Your task to perform on an android device: manage bookmarks in the chrome app Image 0: 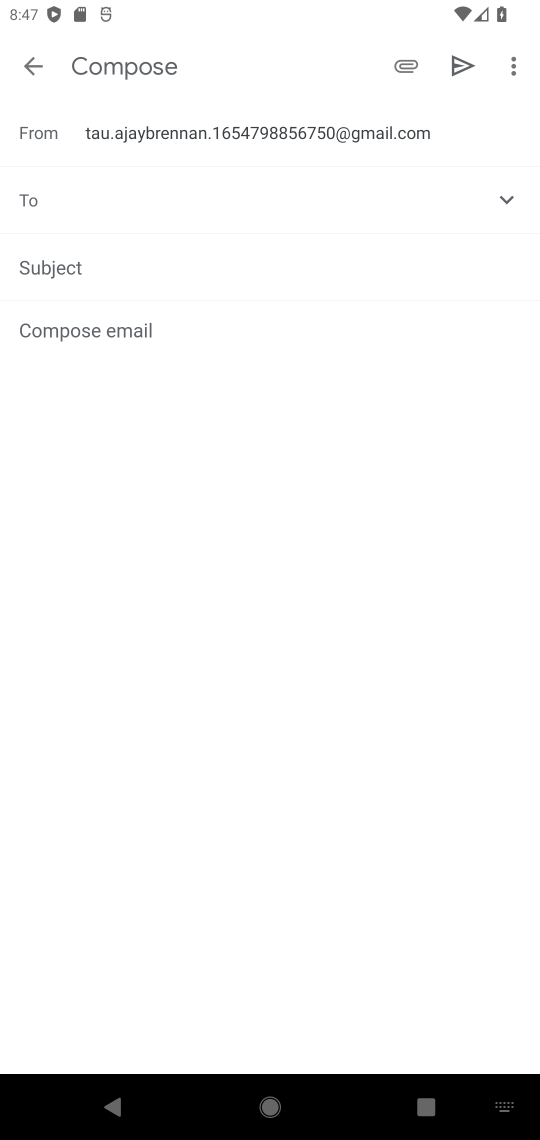
Step 0: press home button
Your task to perform on an android device: manage bookmarks in the chrome app Image 1: 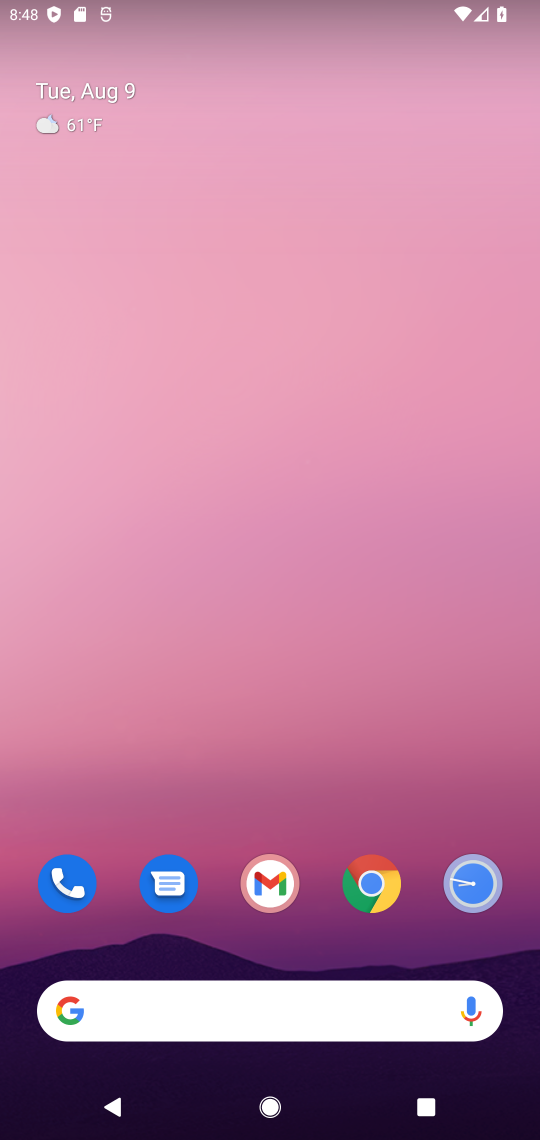
Step 1: click (367, 52)
Your task to perform on an android device: manage bookmarks in the chrome app Image 2: 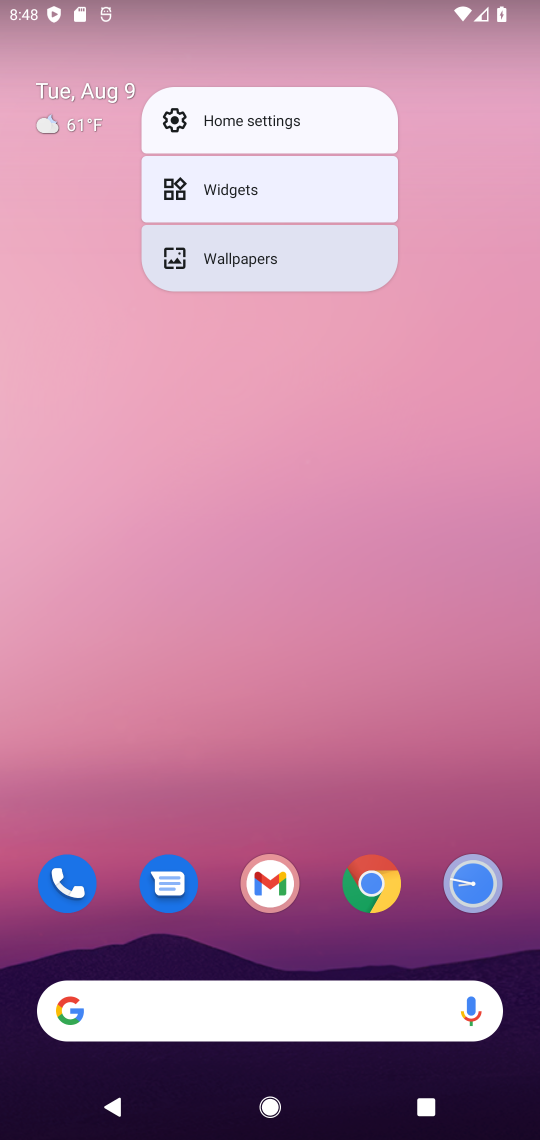
Step 2: click (230, 642)
Your task to perform on an android device: manage bookmarks in the chrome app Image 3: 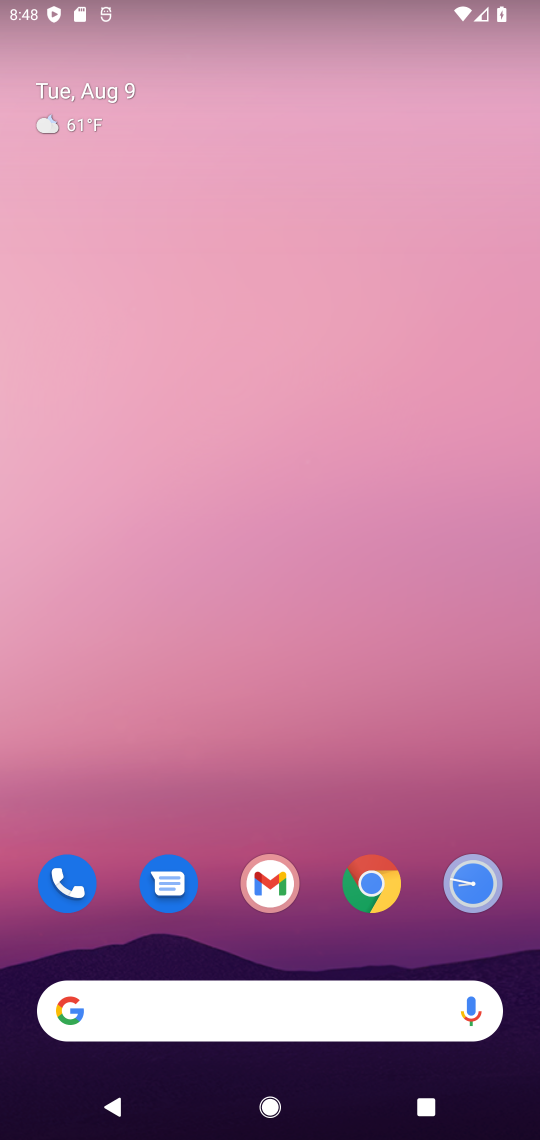
Step 3: drag from (306, 793) to (324, 52)
Your task to perform on an android device: manage bookmarks in the chrome app Image 4: 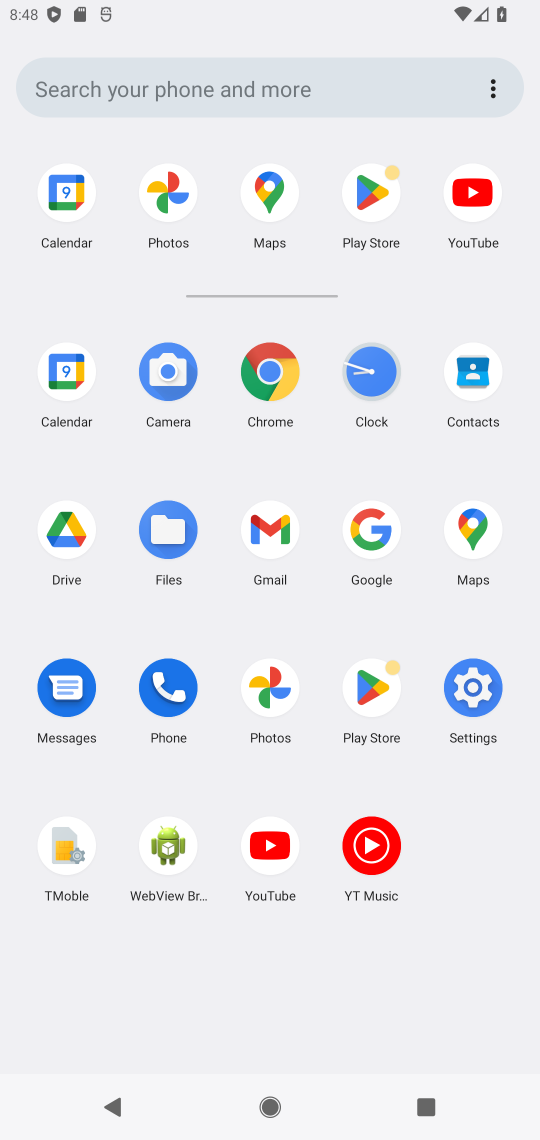
Step 4: click (272, 368)
Your task to perform on an android device: manage bookmarks in the chrome app Image 5: 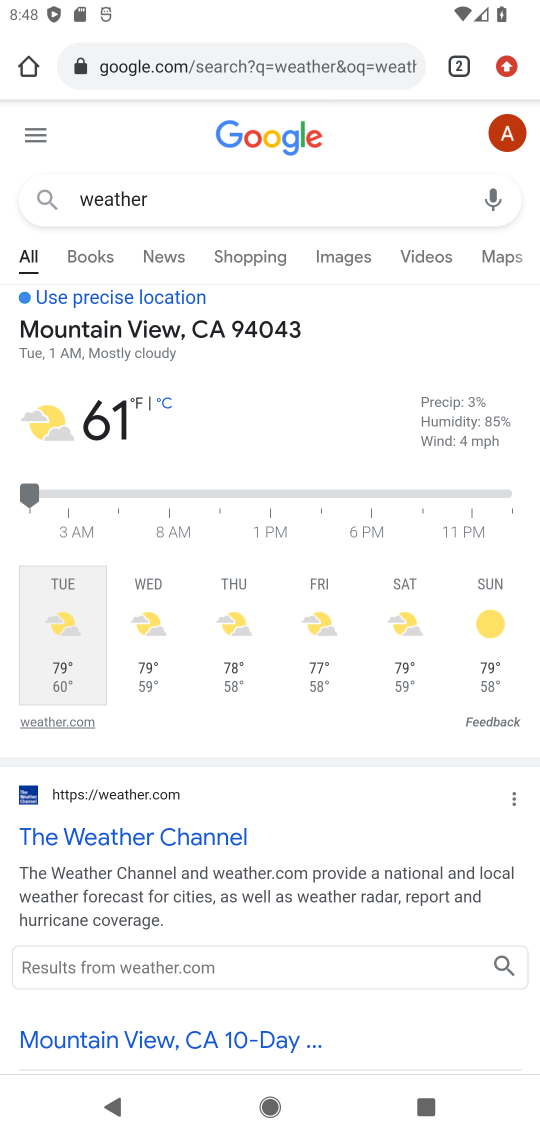
Step 5: drag from (526, 58) to (327, 441)
Your task to perform on an android device: manage bookmarks in the chrome app Image 6: 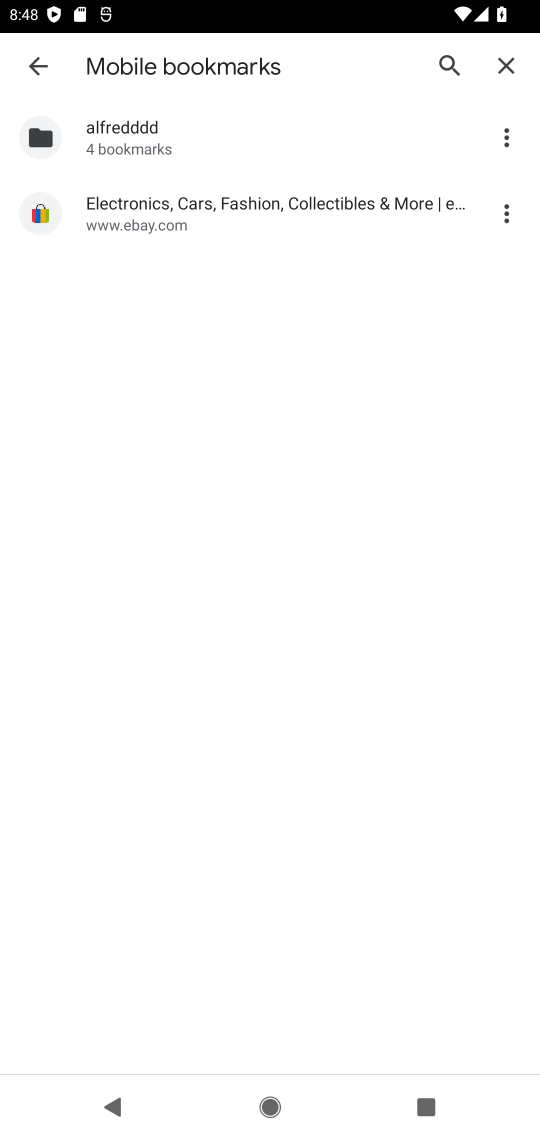
Step 6: click (506, 200)
Your task to perform on an android device: manage bookmarks in the chrome app Image 7: 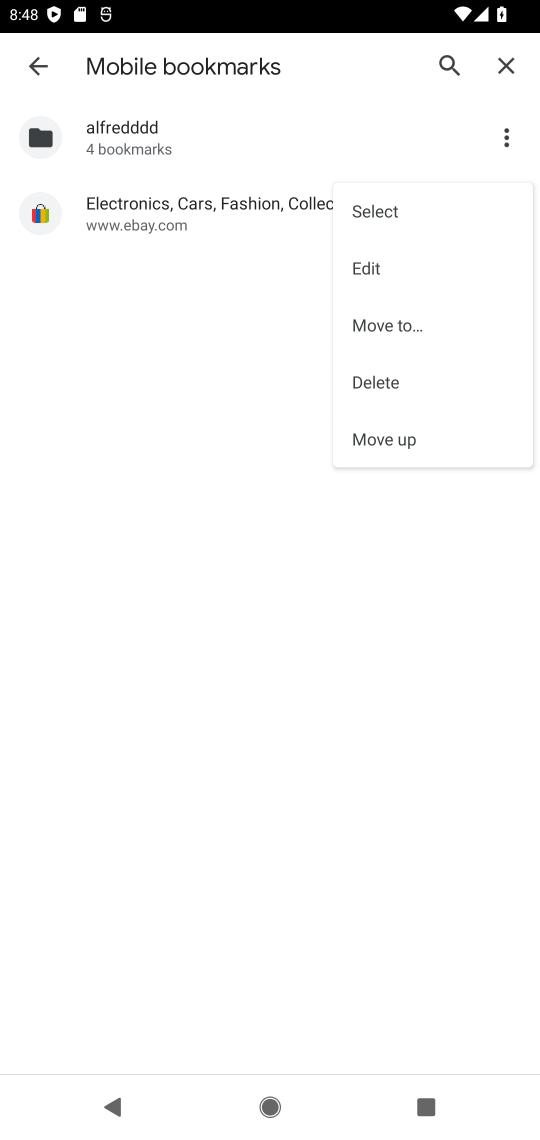
Step 7: click (376, 262)
Your task to perform on an android device: manage bookmarks in the chrome app Image 8: 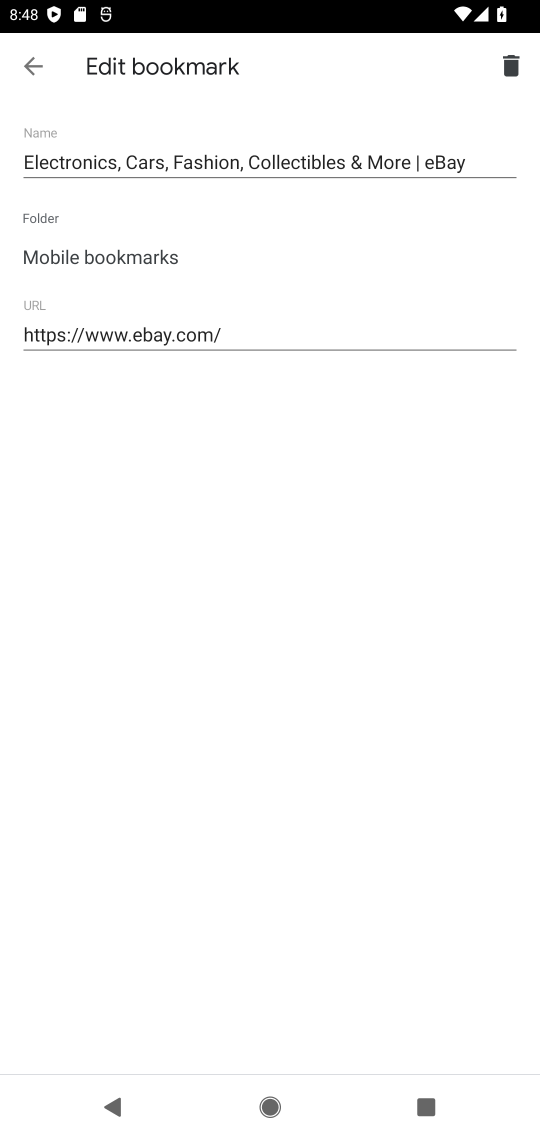
Step 8: click (460, 153)
Your task to perform on an android device: manage bookmarks in the chrome app Image 9: 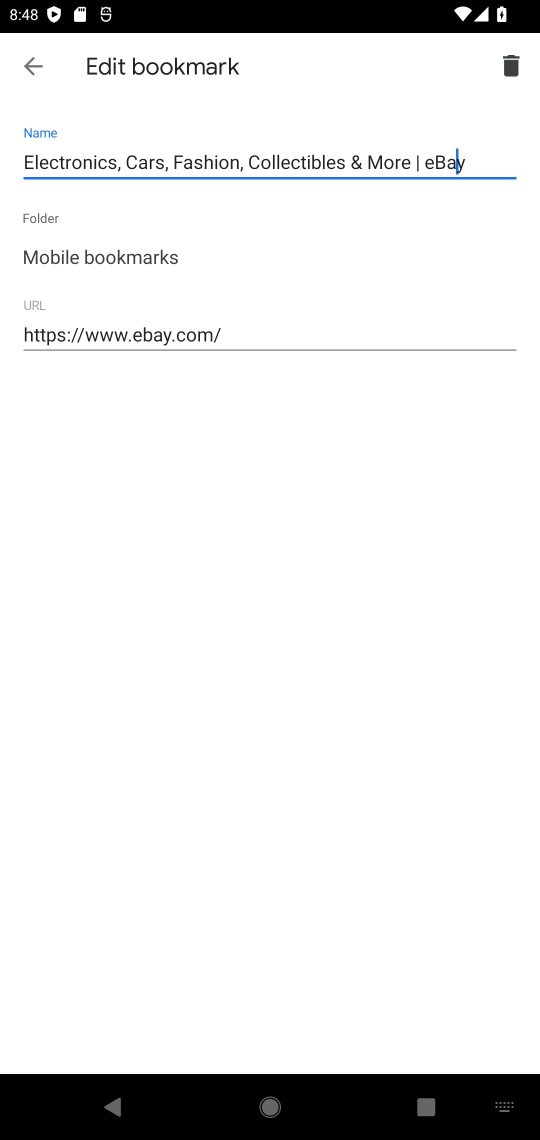
Step 9: type "sia"
Your task to perform on an android device: manage bookmarks in the chrome app Image 10: 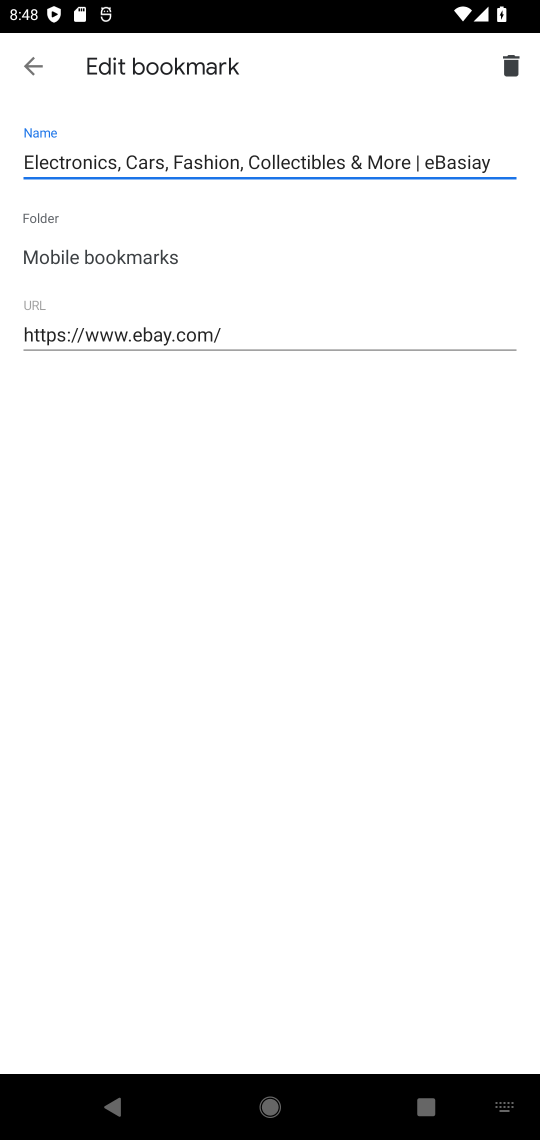
Step 10: click (31, 56)
Your task to perform on an android device: manage bookmarks in the chrome app Image 11: 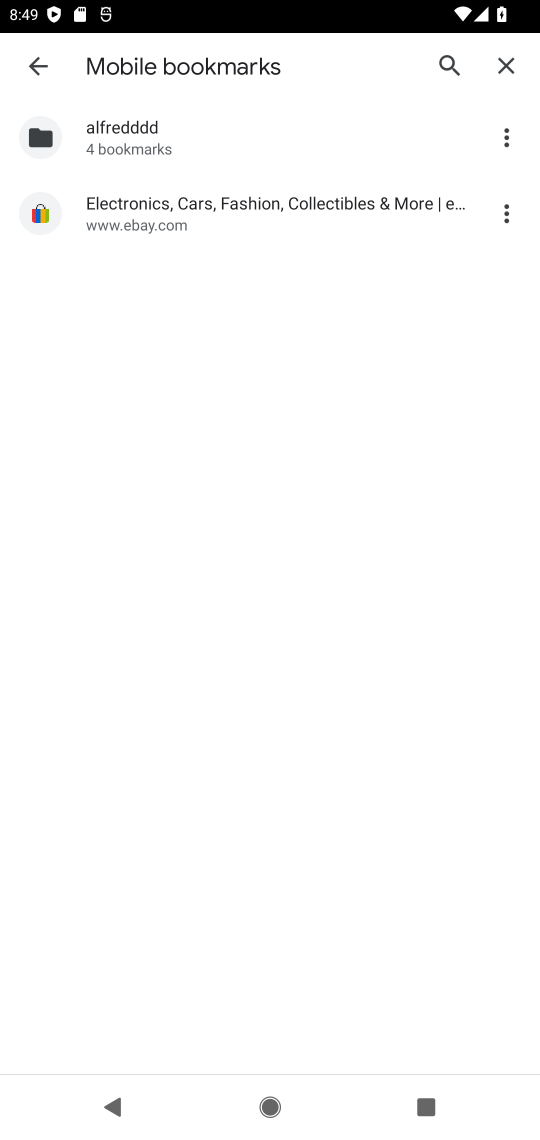
Step 11: click (44, 69)
Your task to perform on an android device: manage bookmarks in the chrome app Image 12: 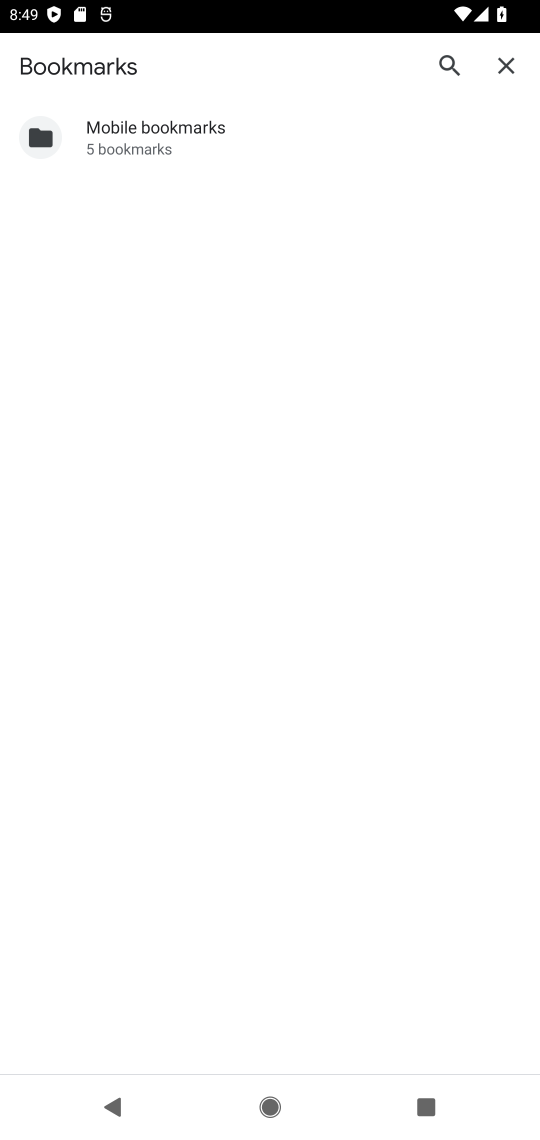
Step 12: task complete